Your task to perform on an android device: check google app version Image 0: 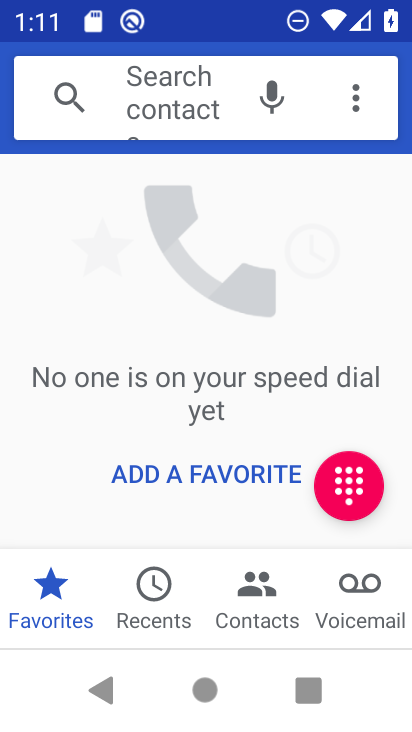
Step 0: press home button
Your task to perform on an android device: check google app version Image 1: 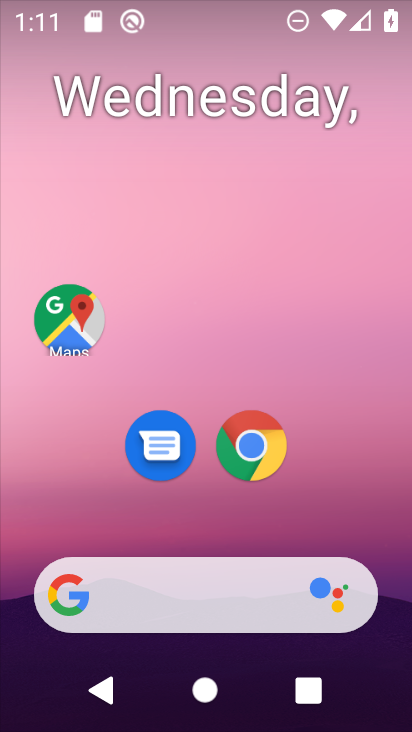
Step 1: drag from (393, 634) to (294, 63)
Your task to perform on an android device: check google app version Image 2: 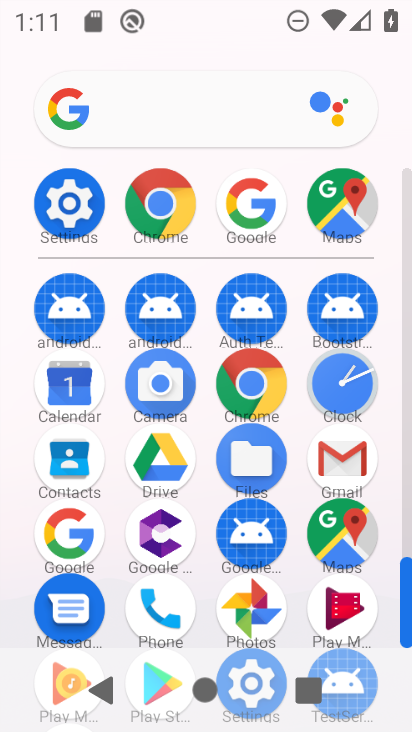
Step 2: click (76, 537)
Your task to perform on an android device: check google app version Image 3: 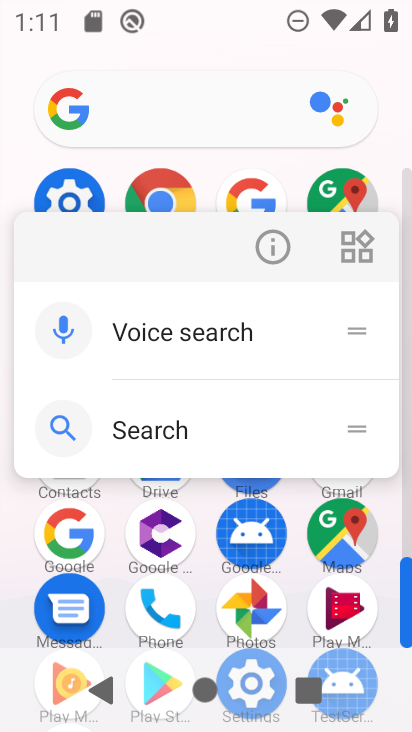
Step 3: click (283, 244)
Your task to perform on an android device: check google app version Image 4: 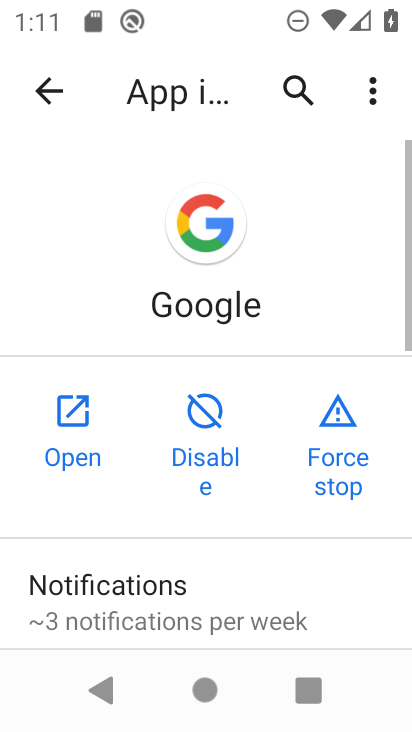
Step 4: click (231, 591)
Your task to perform on an android device: check google app version Image 5: 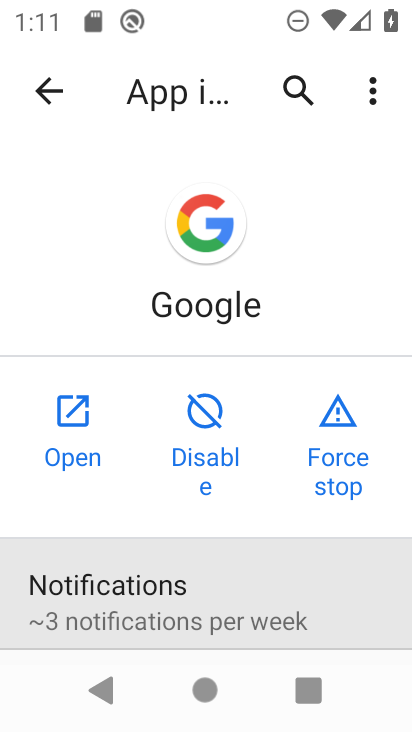
Step 5: drag from (244, 349) to (192, 79)
Your task to perform on an android device: check google app version Image 6: 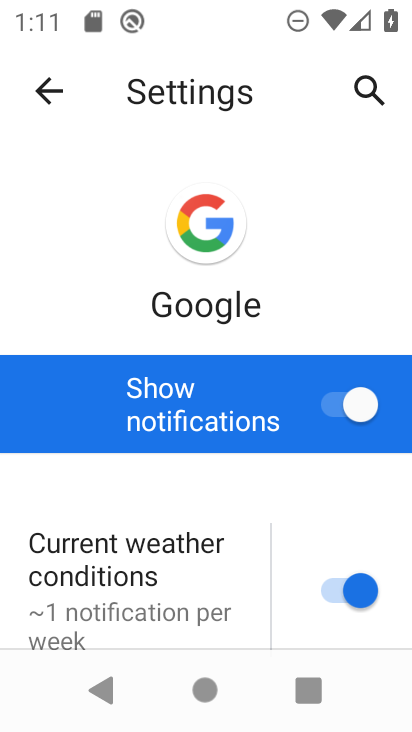
Step 6: press back button
Your task to perform on an android device: check google app version Image 7: 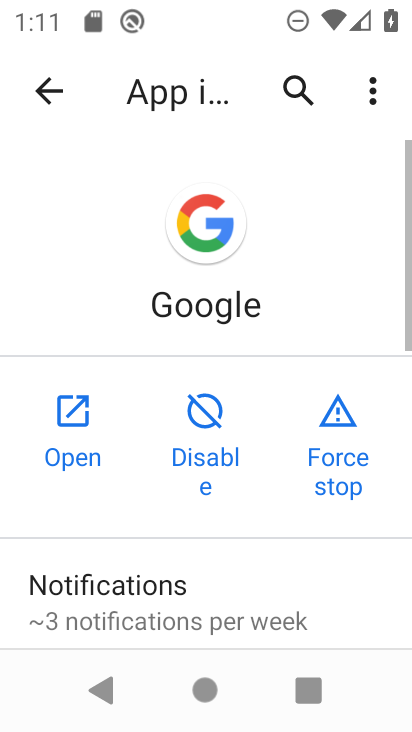
Step 7: drag from (236, 588) to (235, 303)
Your task to perform on an android device: check google app version Image 8: 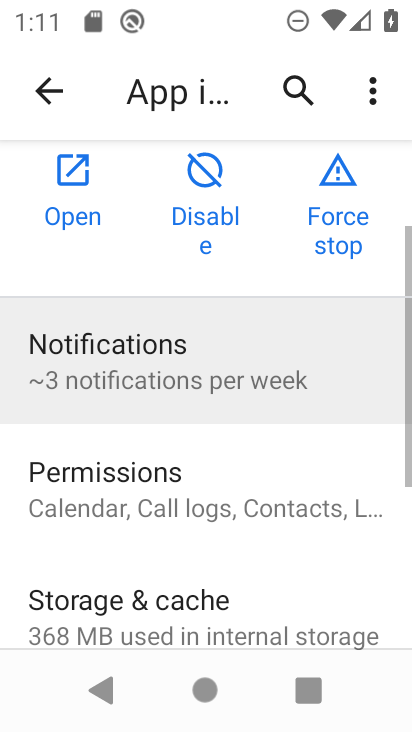
Step 8: click (232, 89)
Your task to perform on an android device: check google app version Image 9: 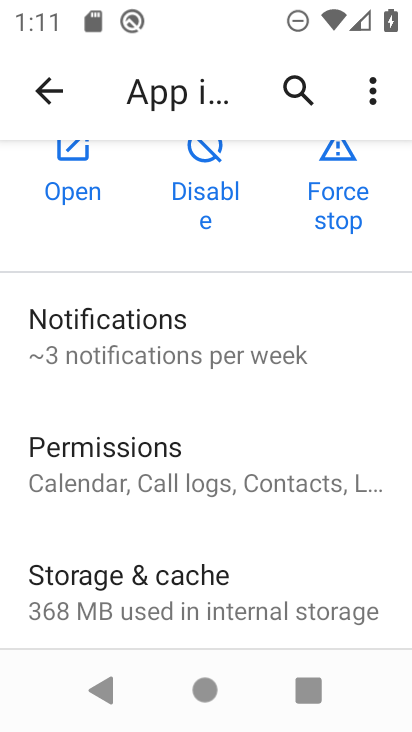
Step 9: drag from (130, 488) to (150, 157)
Your task to perform on an android device: check google app version Image 10: 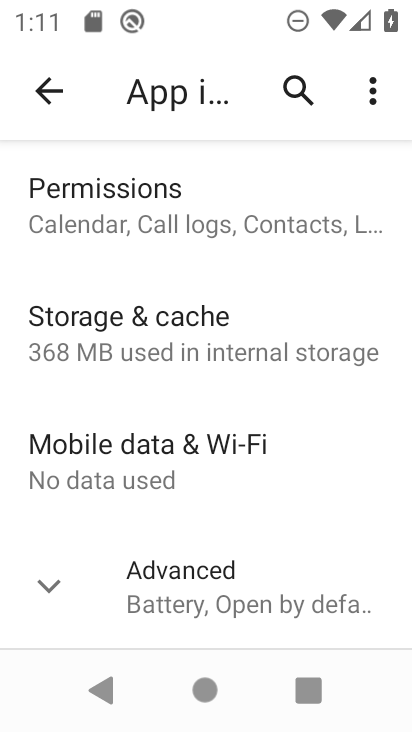
Step 10: click (82, 593)
Your task to perform on an android device: check google app version Image 11: 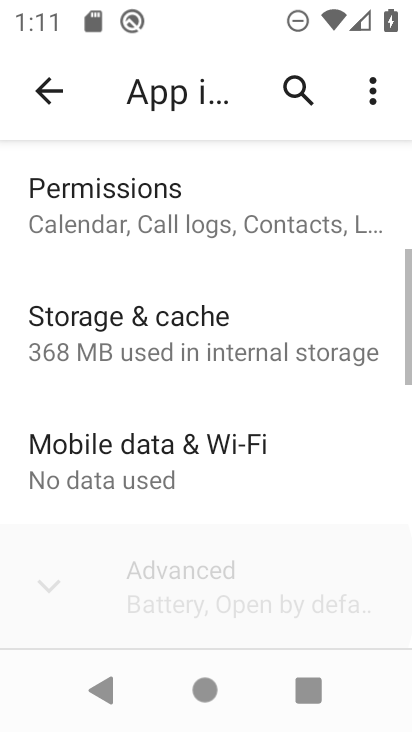
Step 11: task complete